Your task to perform on an android device: Search for Mexican restaurants on Maps Image 0: 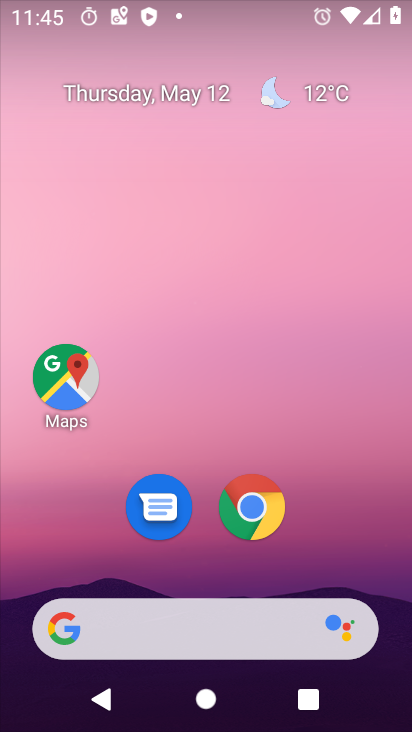
Step 0: click (82, 371)
Your task to perform on an android device: Search for Mexican restaurants on Maps Image 1: 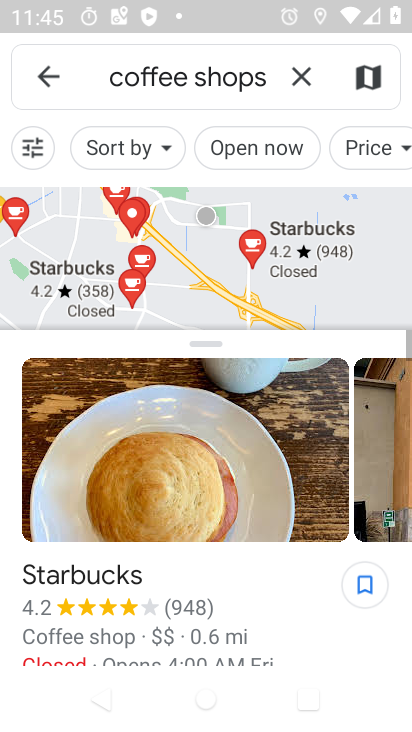
Step 1: click (298, 81)
Your task to perform on an android device: Search for Mexican restaurants on Maps Image 2: 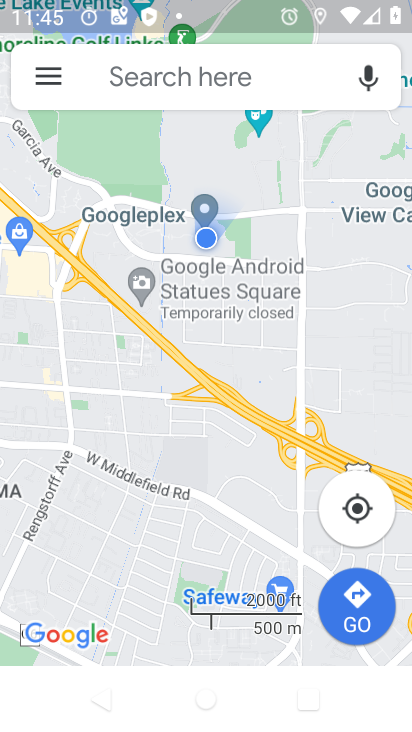
Step 2: click (251, 79)
Your task to perform on an android device: Search for Mexican restaurants on Maps Image 3: 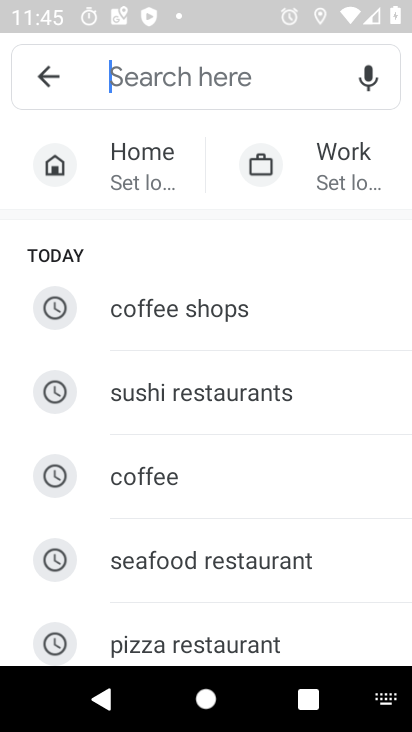
Step 3: type "mexican restaurants"
Your task to perform on an android device: Search for Mexican restaurants on Maps Image 4: 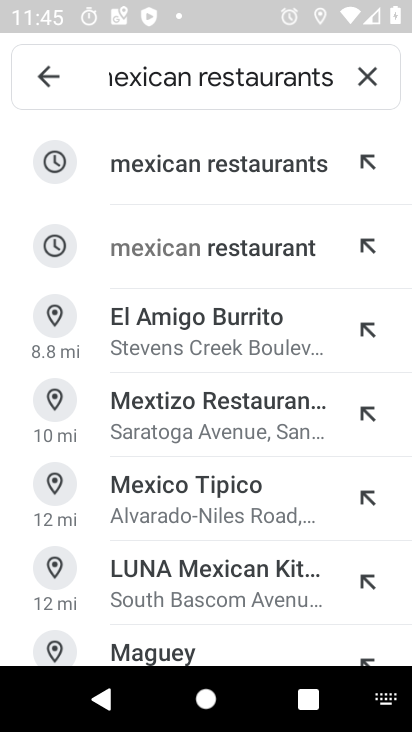
Step 4: click (182, 184)
Your task to perform on an android device: Search for Mexican restaurants on Maps Image 5: 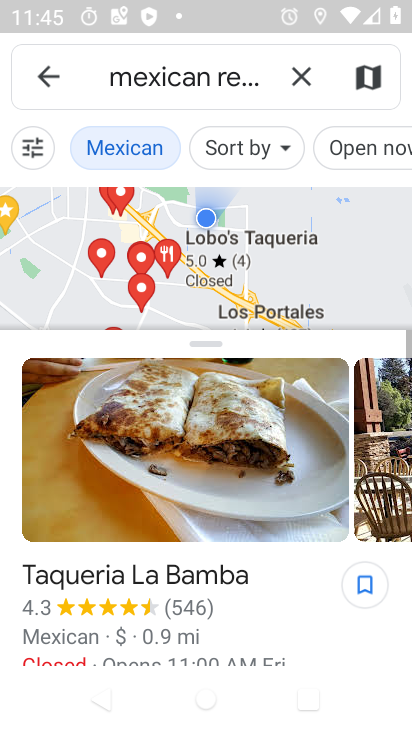
Step 5: task complete